Your task to perform on an android device: star an email in the gmail app Image 0: 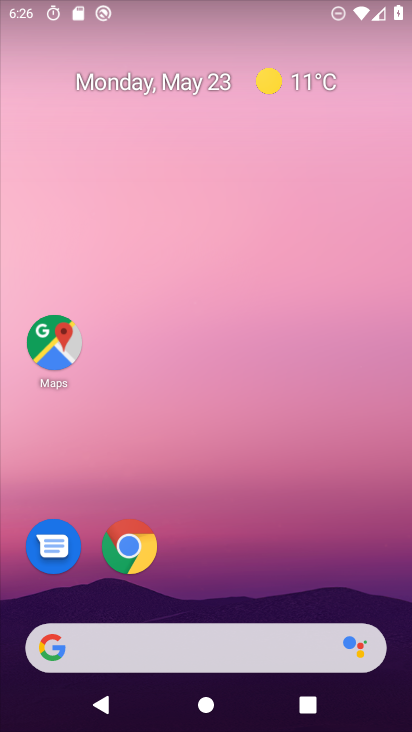
Step 0: drag from (269, 565) to (224, 84)
Your task to perform on an android device: star an email in the gmail app Image 1: 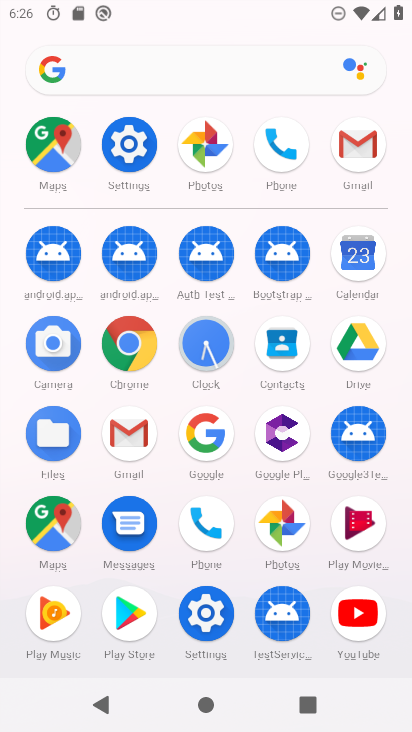
Step 1: click (368, 148)
Your task to perform on an android device: star an email in the gmail app Image 2: 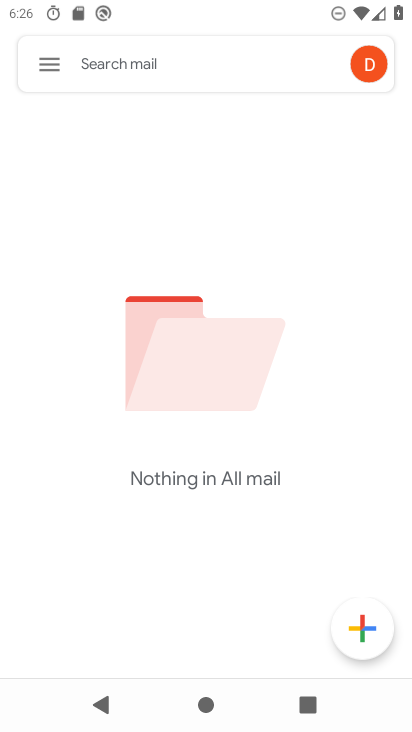
Step 2: click (41, 71)
Your task to perform on an android device: star an email in the gmail app Image 3: 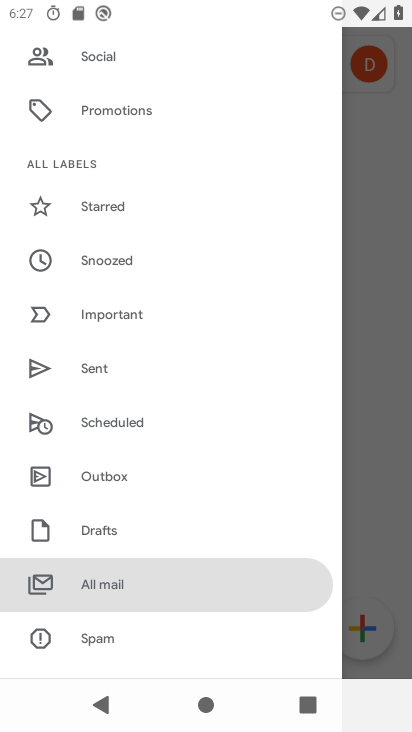
Step 3: drag from (158, 99) to (157, 454)
Your task to perform on an android device: star an email in the gmail app Image 4: 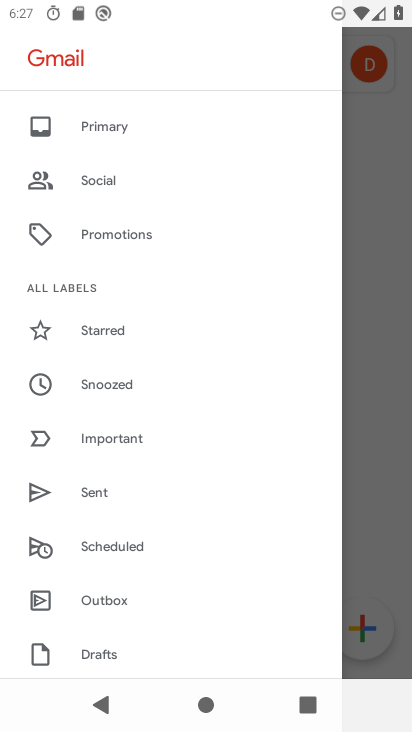
Step 4: click (141, 119)
Your task to perform on an android device: star an email in the gmail app Image 5: 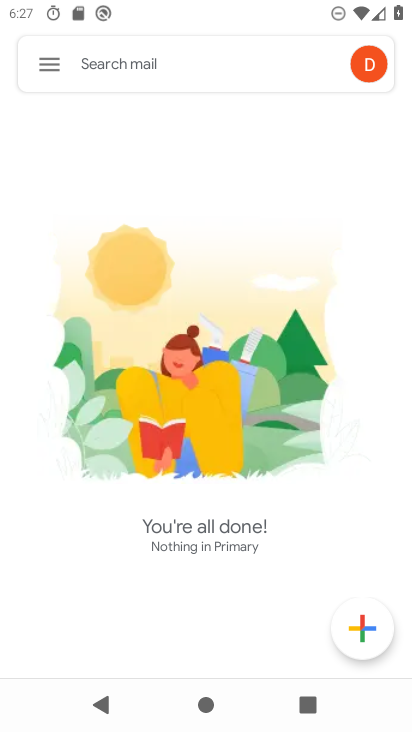
Step 5: task complete